Your task to perform on an android device: open chrome and create a bookmark for the current page Image 0: 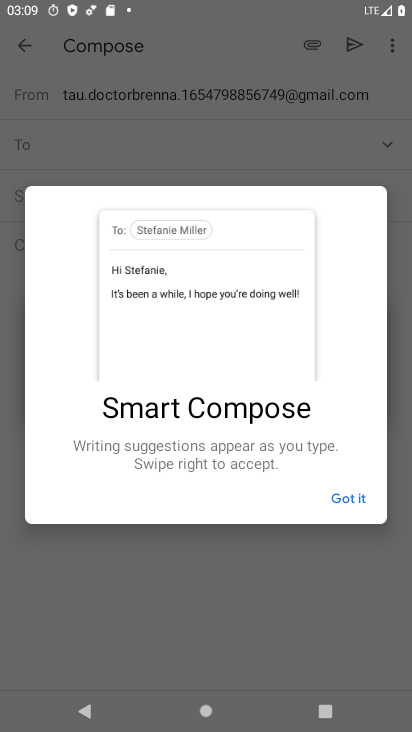
Step 0: drag from (236, 613) to (295, 141)
Your task to perform on an android device: open chrome and create a bookmark for the current page Image 1: 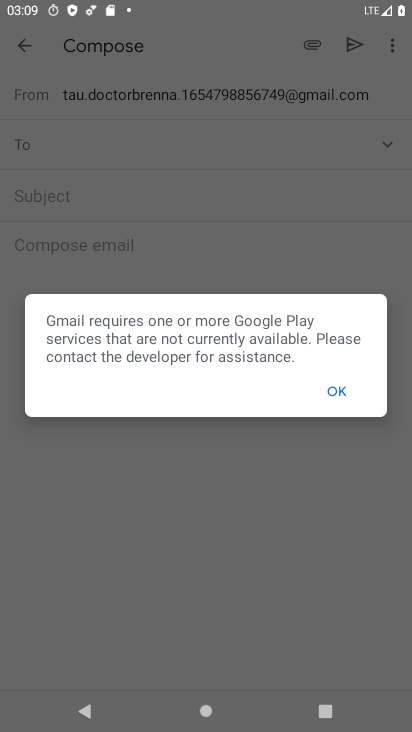
Step 1: press home button
Your task to perform on an android device: open chrome and create a bookmark for the current page Image 2: 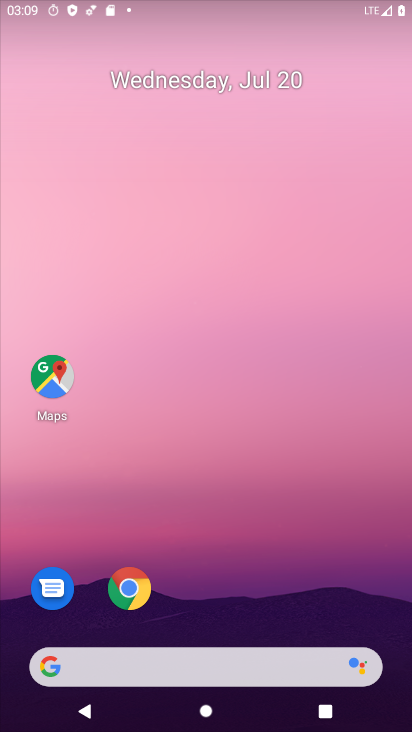
Step 2: drag from (230, 573) to (316, 133)
Your task to perform on an android device: open chrome and create a bookmark for the current page Image 3: 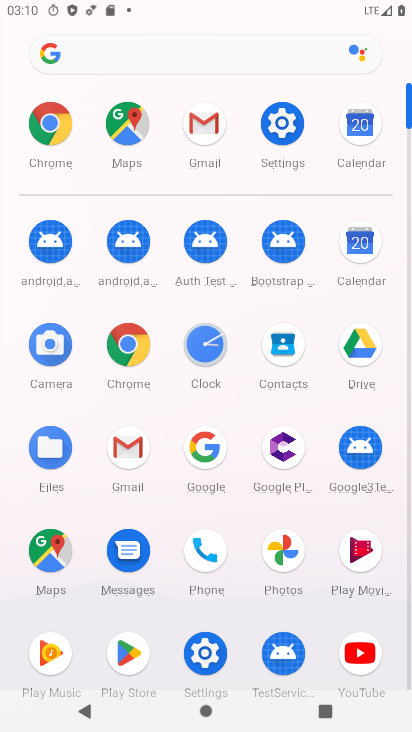
Step 3: click (117, 343)
Your task to perform on an android device: open chrome and create a bookmark for the current page Image 4: 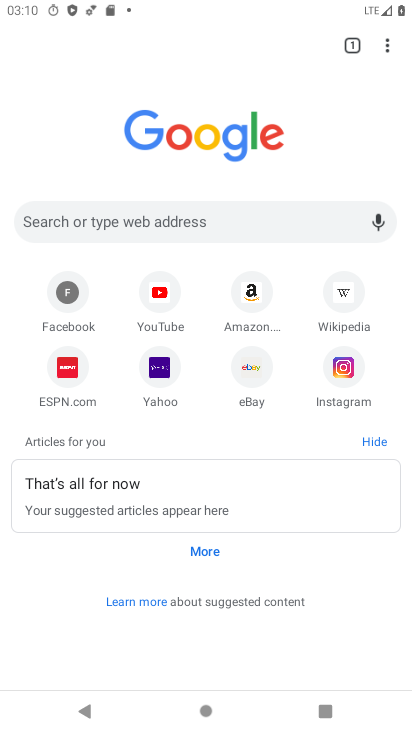
Step 4: drag from (385, 46) to (278, 171)
Your task to perform on an android device: open chrome and create a bookmark for the current page Image 5: 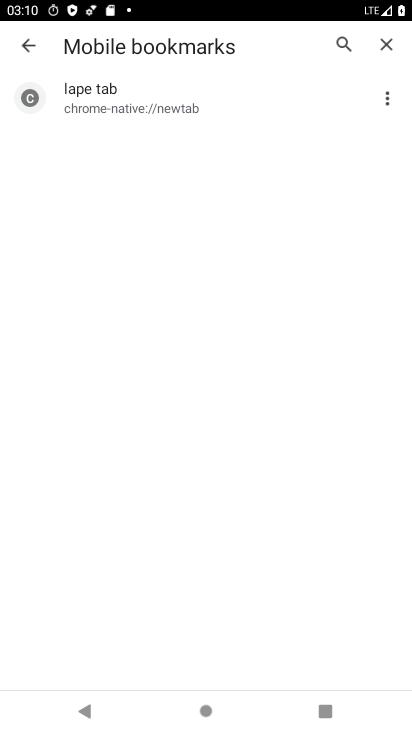
Step 5: click (395, 44)
Your task to perform on an android device: open chrome and create a bookmark for the current page Image 6: 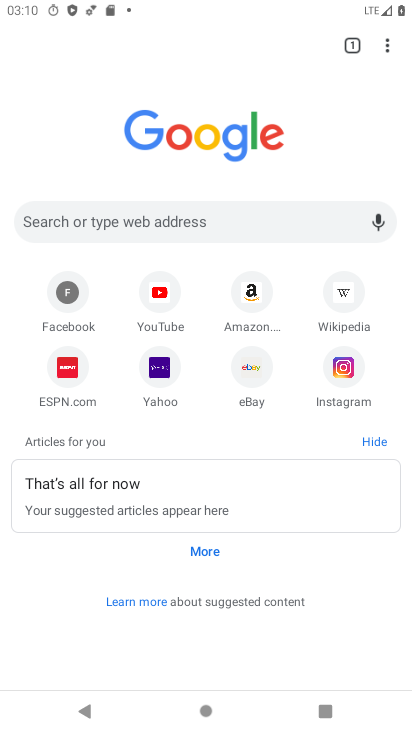
Step 6: drag from (395, 40) to (56, 98)
Your task to perform on an android device: open chrome and create a bookmark for the current page Image 7: 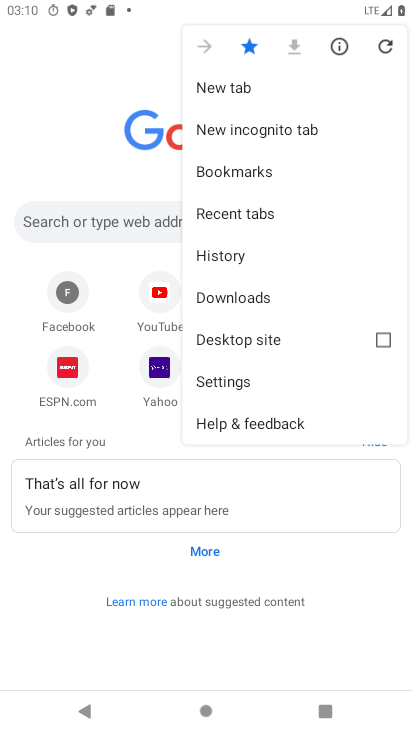
Step 7: click (57, 96)
Your task to perform on an android device: open chrome and create a bookmark for the current page Image 8: 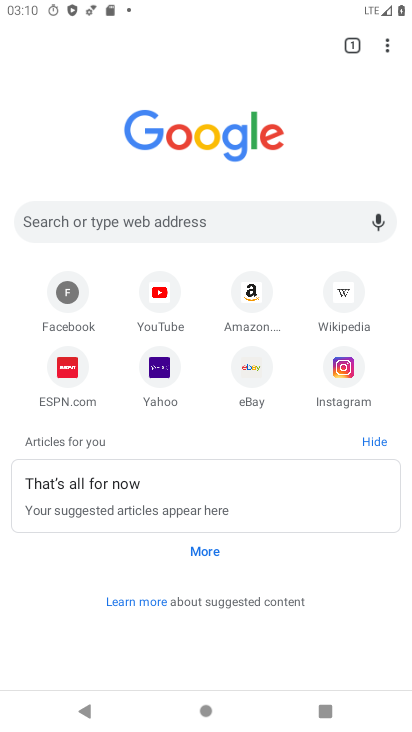
Step 8: task complete